Your task to perform on an android device: open app "Expedia: Hotels, Flights & Car" (install if not already installed) Image 0: 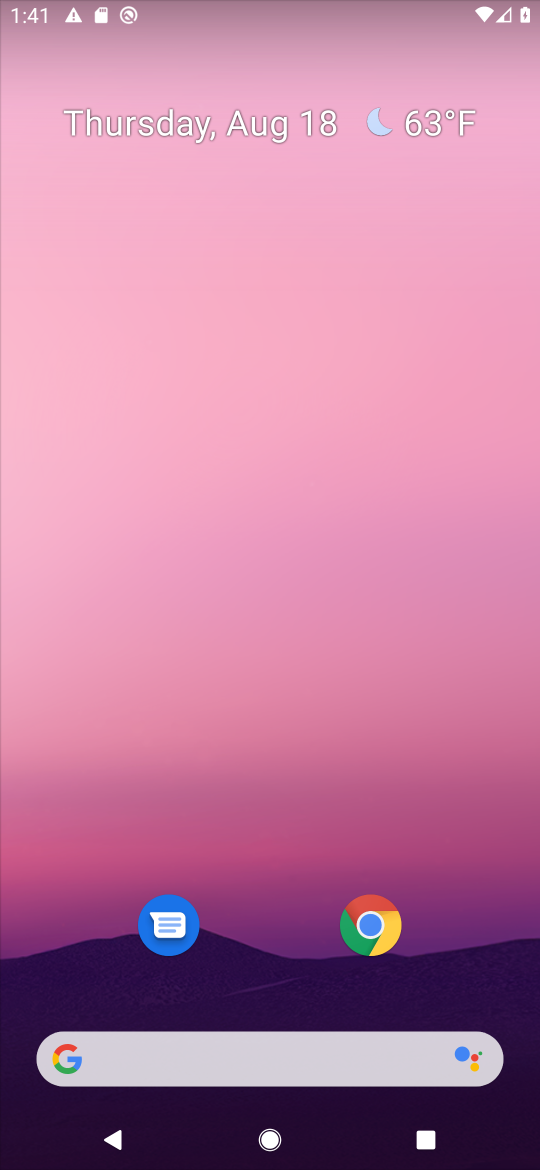
Step 0: drag from (294, 384) to (477, 65)
Your task to perform on an android device: open app "Expedia: Hotels, Flights & Car" (install if not already installed) Image 1: 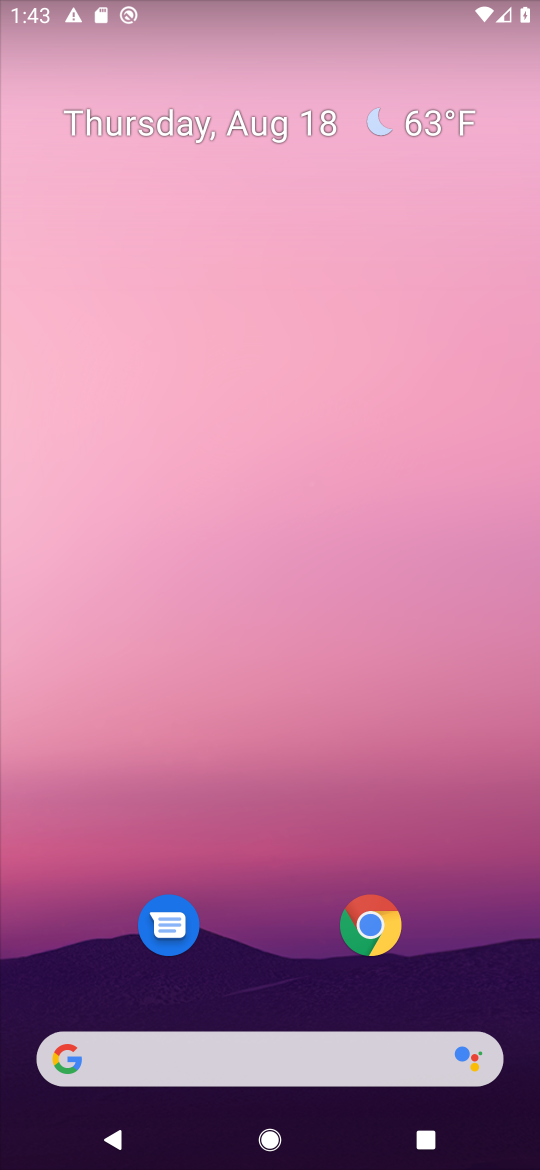
Step 1: click (325, 523)
Your task to perform on an android device: open app "Expedia: Hotels, Flights & Car" (install if not already installed) Image 2: 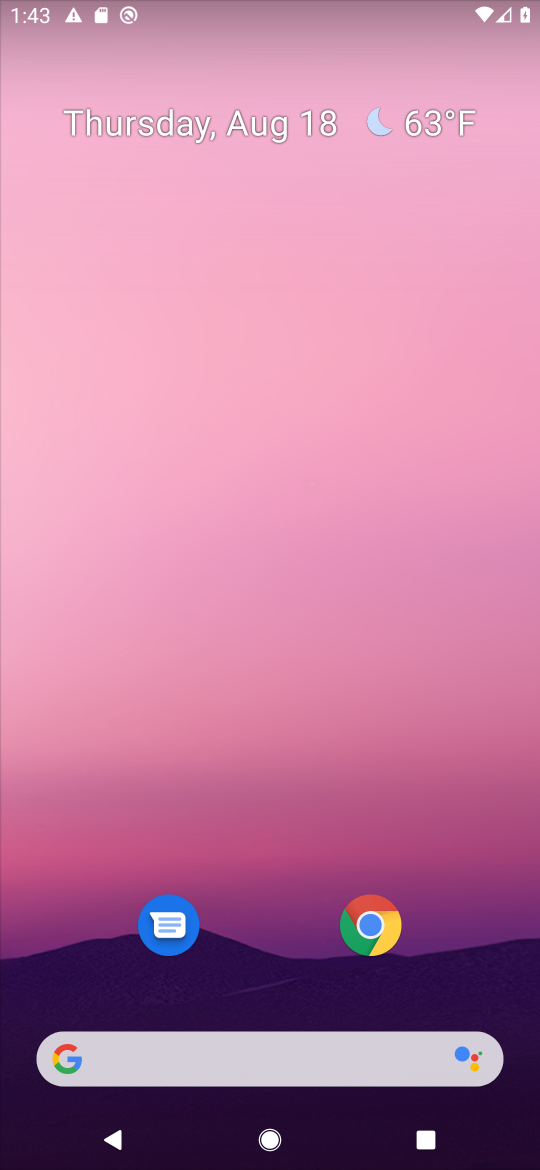
Step 2: drag from (254, 986) to (296, 16)
Your task to perform on an android device: open app "Expedia: Hotels, Flights & Car" (install if not already installed) Image 3: 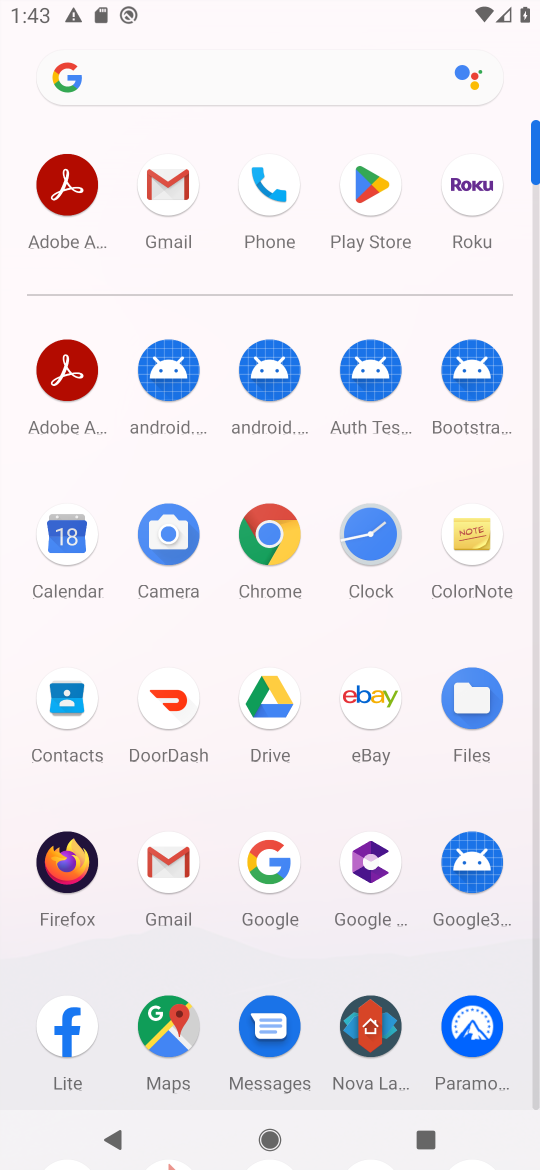
Step 3: click (370, 194)
Your task to perform on an android device: open app "Expedia: Hotels, Flights & Car" (install if not already installed) Image 4: 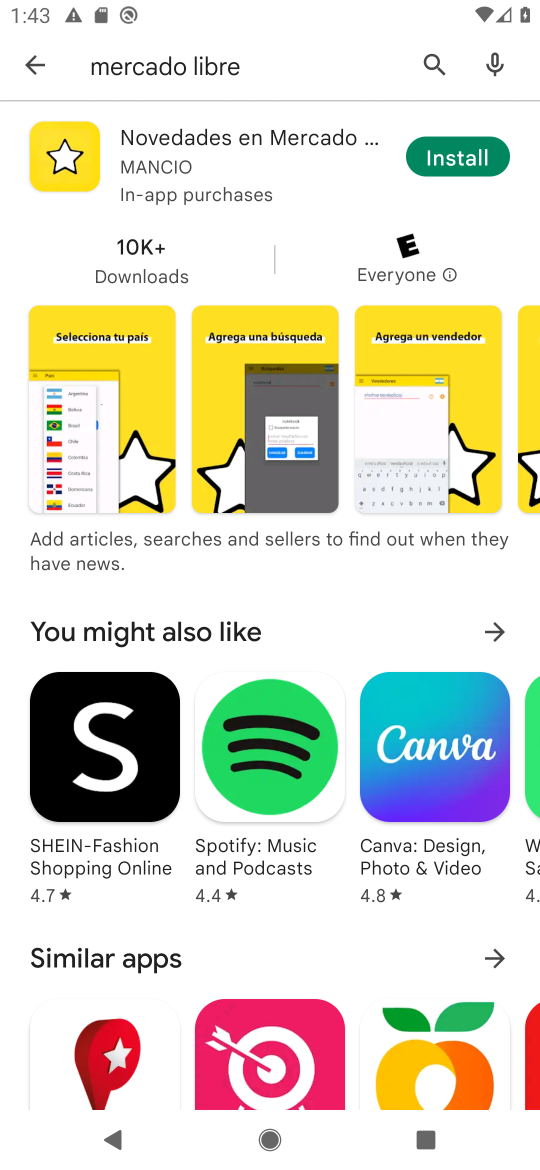
Step 4: click (42, 55)
Your task to perform on an android device: open app "Expedia: Hotels, Flights & Car" (install if not already installed) Image 5: 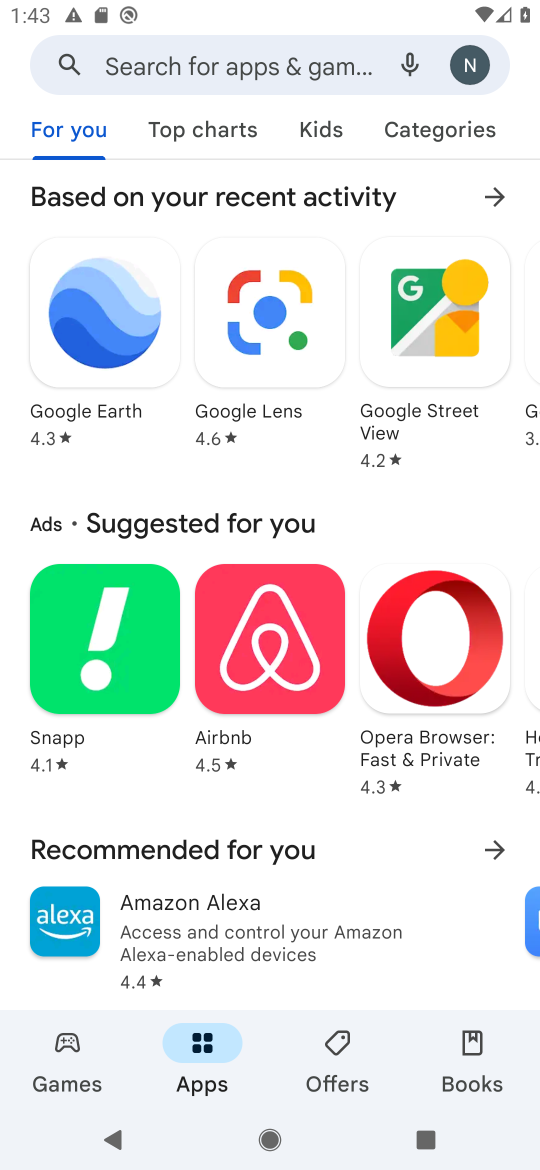
Step 5: click (237, 72)
Your task to perform on an android device: open app "Expedia: Hotels, Flights & Car" (install if not already installed) Image 6: 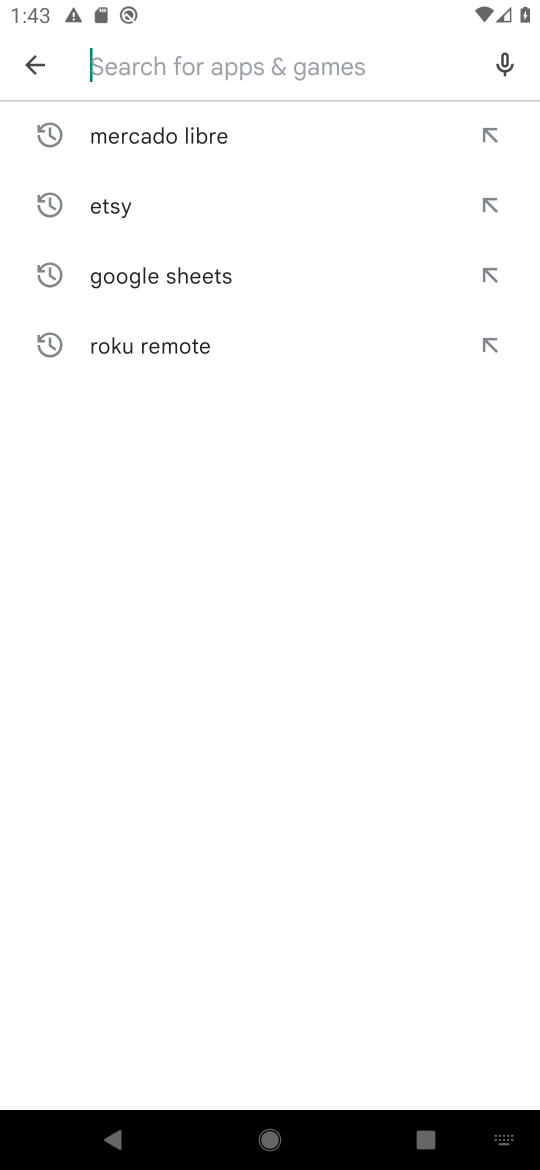
Step 6: type "Expedia"
Your task to perform on an android device: open app "Expedia: Hotels, Flights & Car" (install if not already installed) Image 7: 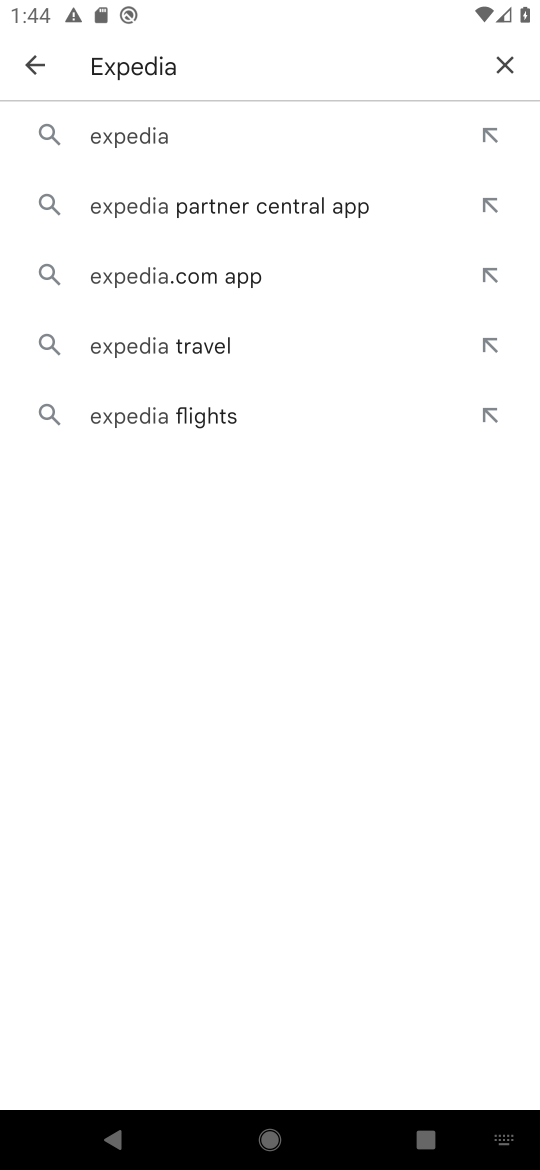
Step 7: click (132, 129)
Your task to perform on an android device: open app "Expedia: Hotels, Flights & Car" (install if not already installed) Image 8: 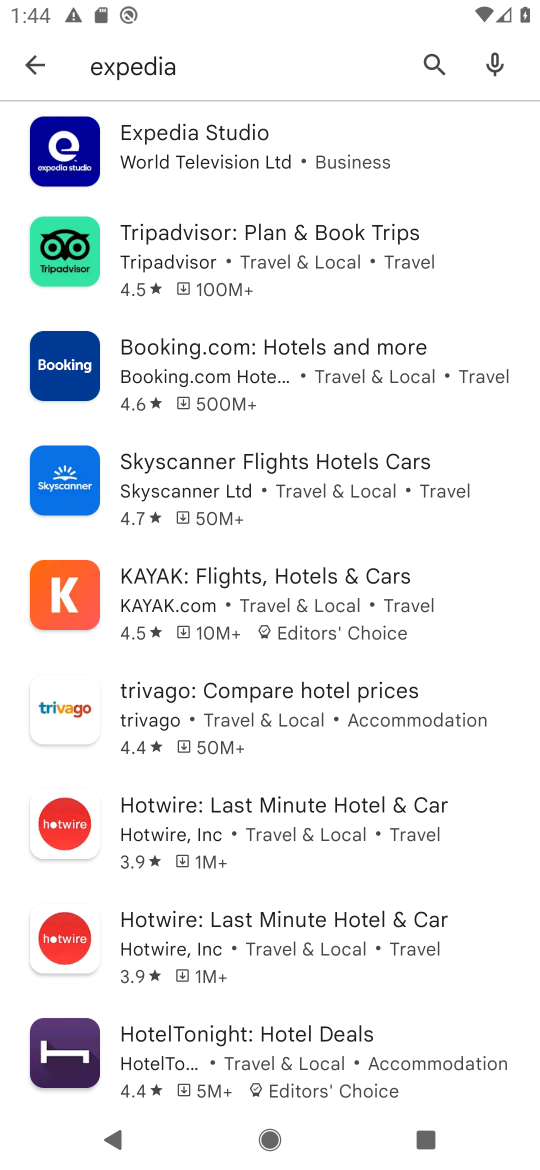
Step 8: click (37, 63)
Your task to perform on an android device: open app "Expedia: Hotels, Flights & Car" (install if not already installed) Image 9: 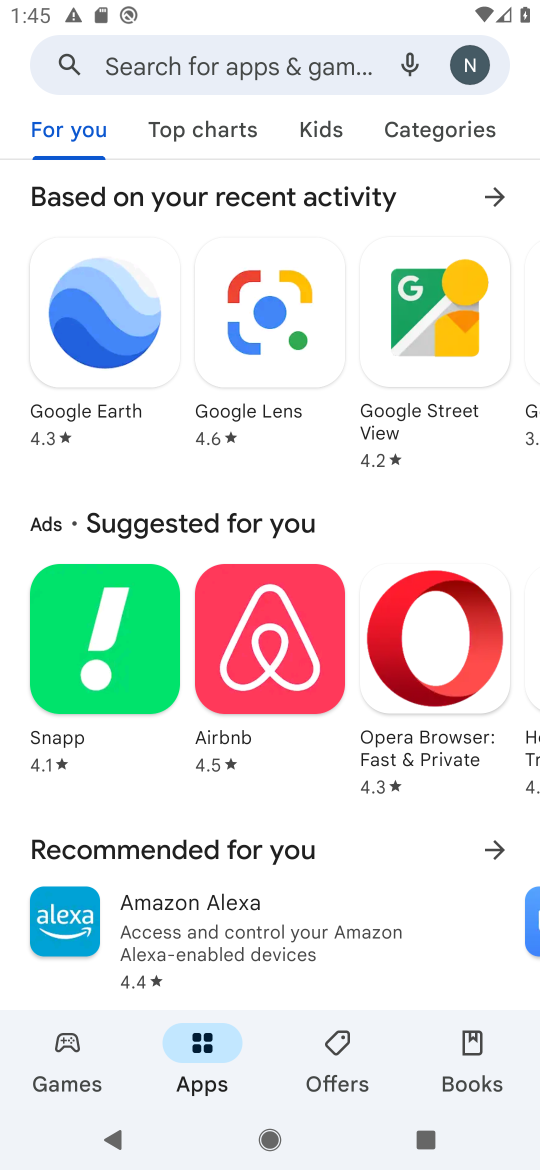
Step 9: click (440, 74)
Your task to perform on an android device: open app "Expedia: Hotels, Flights & Car" (install if not already installed) Image 10: 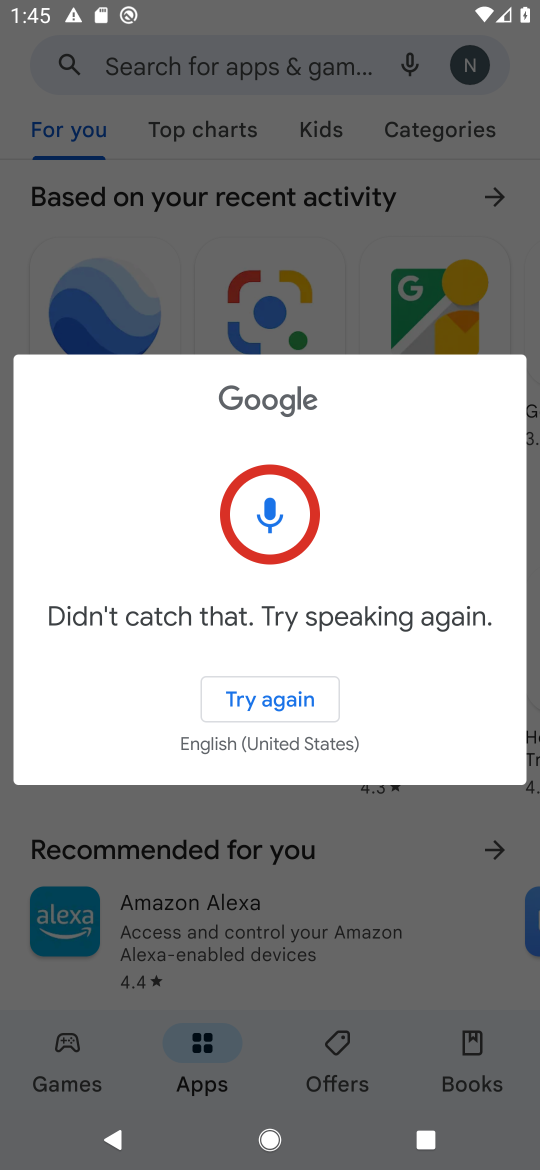
Step 10: click (307, 61)
Your task to perform on an android device: open app "Expedia: Hotels, Flights & Car" (install if not already installed) Image 11: 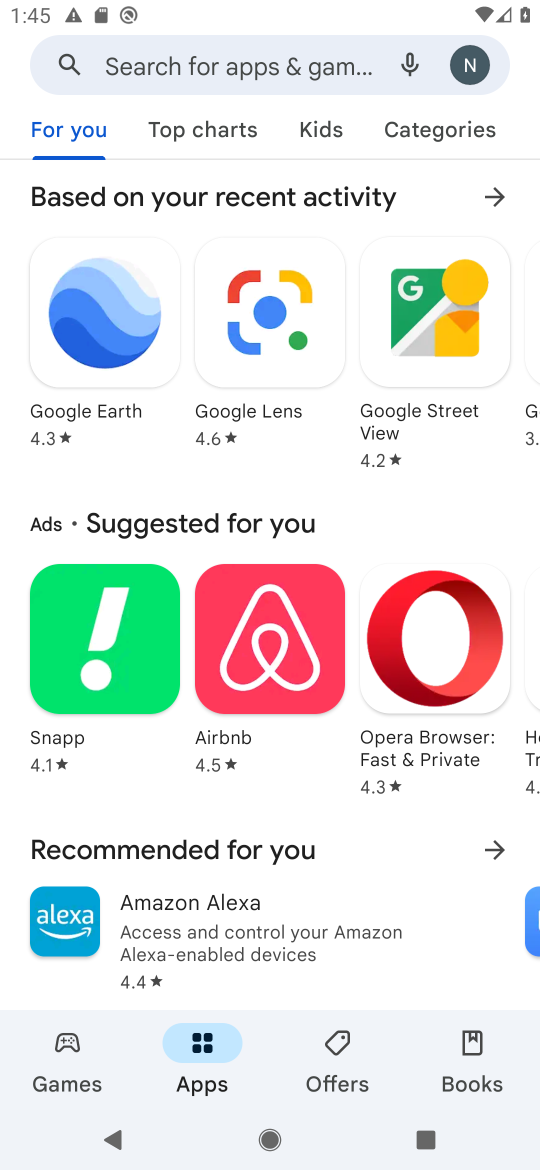
Step 11: click (165, 61)
Your task to perform on an android device: open app "Expedia: Hotels, Flights & Car" (install if not already installed) Image 12: 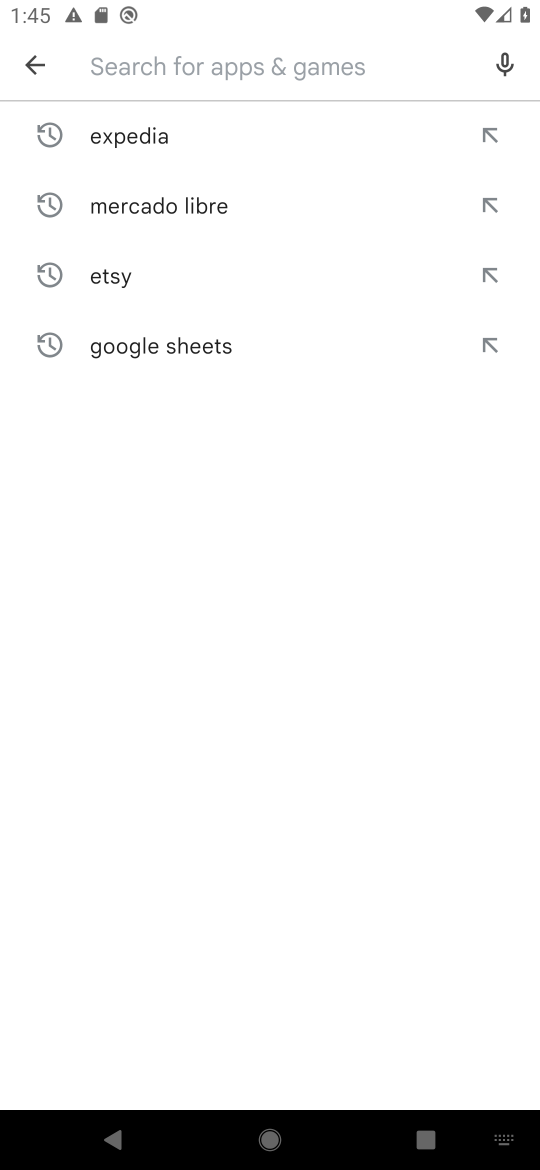
Step 12: type "Expedia: Hotels, Flights & Car"
Your task to perform on an android device: open app "Expedia: Hotels, Flights & Car" (install if not already installed) Image 13: 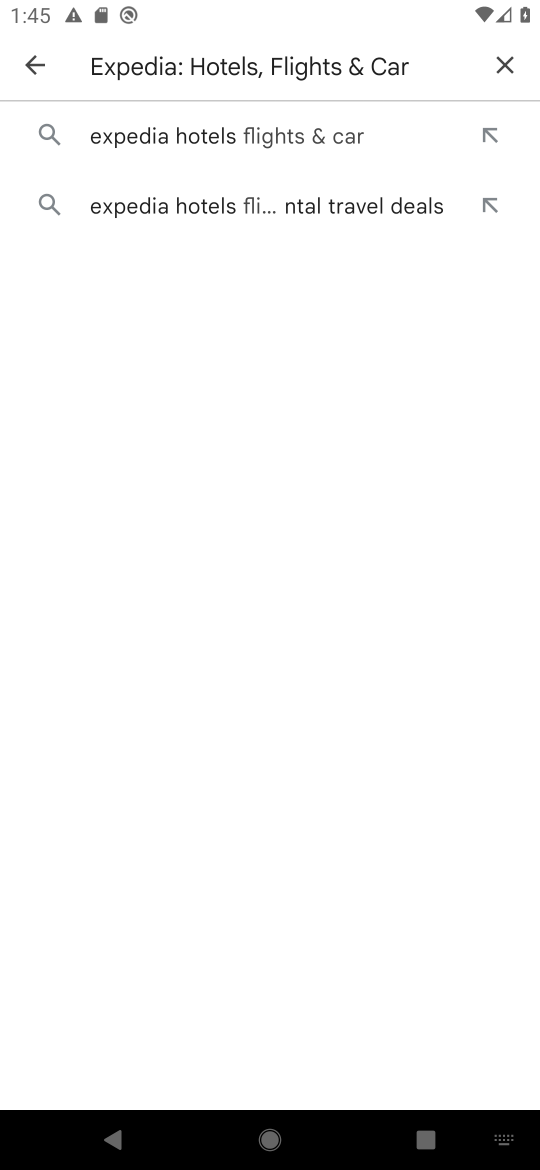
Step 13: click (256, 140)
Your task to perform on an android device: open app "Expedia: Hotels, Flights & Car" (install if not already installed) Image 14: 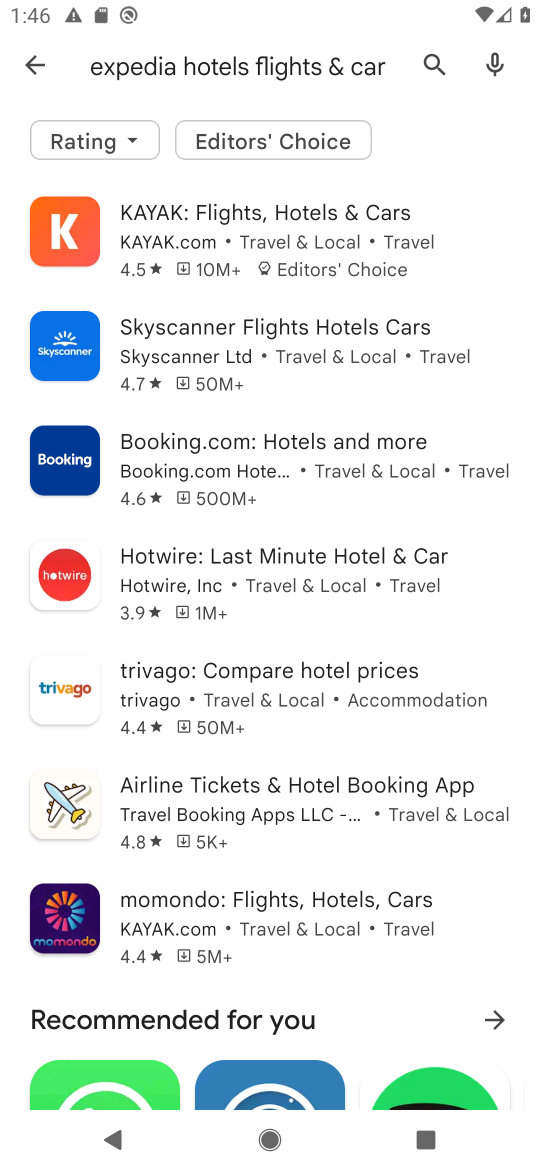
Step 14: task complete